Your task to perform on an android device: open app "Mercado Libre" (install if not already installed) Image 0: 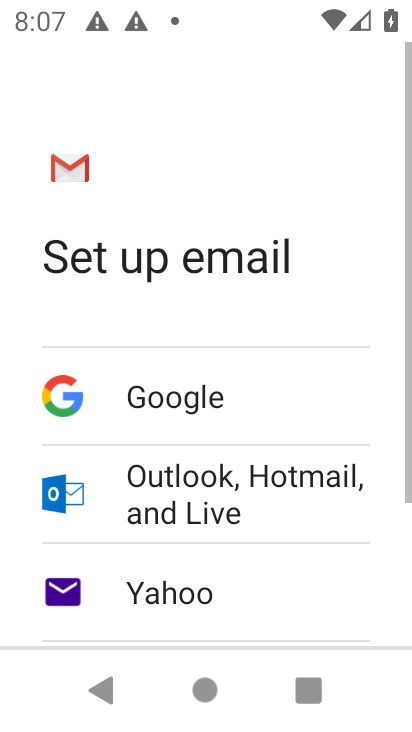
Step 0: press home button
Your task to perform on an android device: open app "Mercado Libre" (install if not already installed) Image 1: 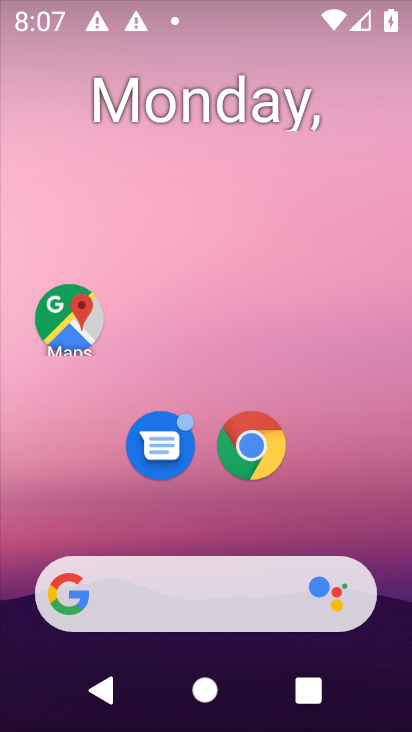
Step 1: drag from (385, 611) to (200, 24)
Your task to perform on an android device: open app "Mercado Libre" (install if not already installed) Image 2: 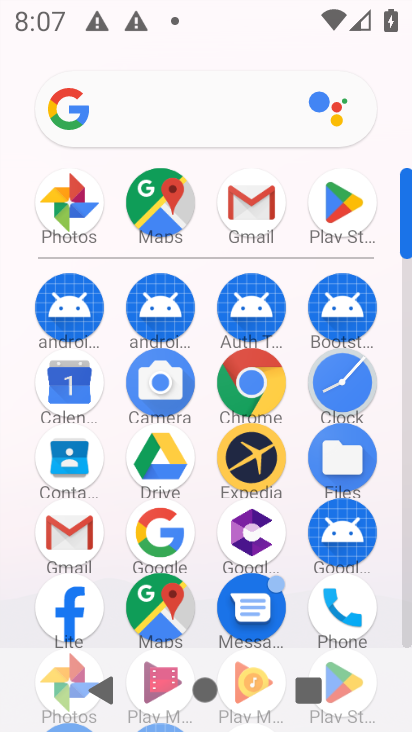
Step 2: click (334, 226)
Your task to perform on an android device: open app "Mercado Libre" (install if not already installed) Image 3: 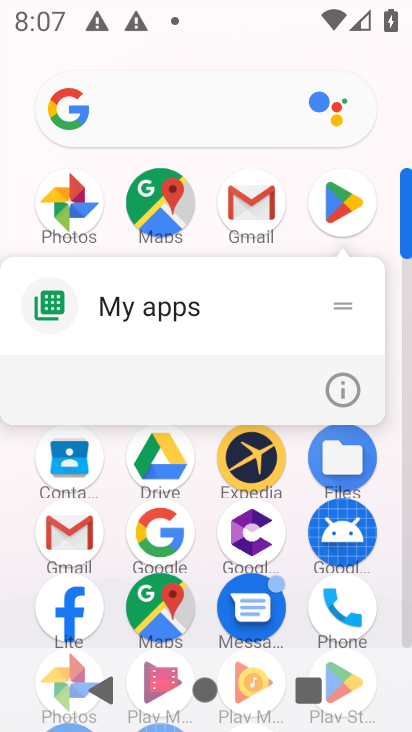
Step 3: click (334, 226)
Your task to perform on an android device: open app "Mercado Libre" (install if not already installed) Image 4: 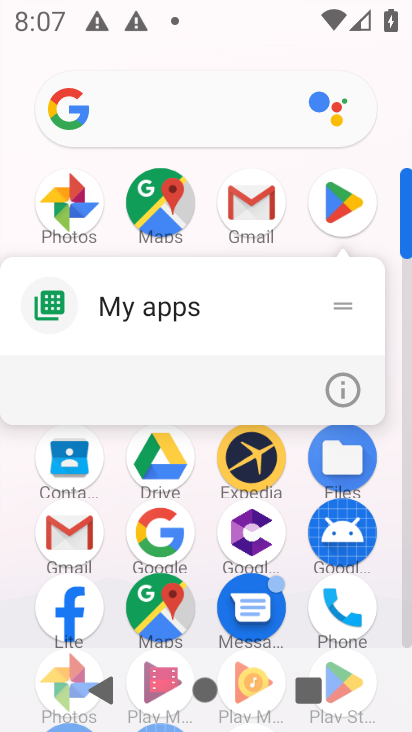
Step 4: click (334, 226)
Your task to perform on an android device: open app "Mercado Libre" (install if not already installed) Image 5: 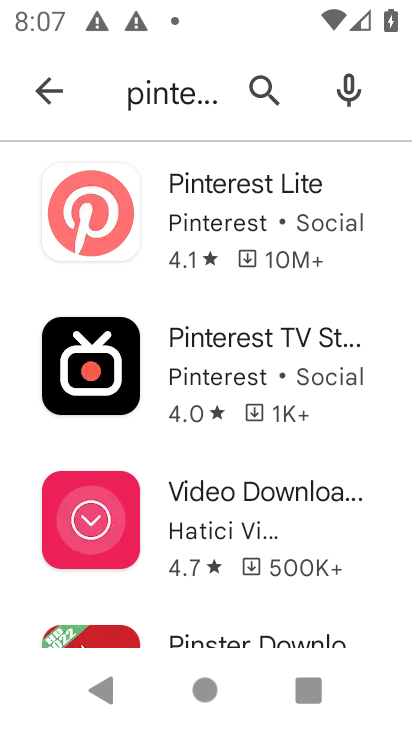
Step 5: press back button
Your task to perform on an android device: open app "Mercado Libre" (install if not already installed) Image 6: 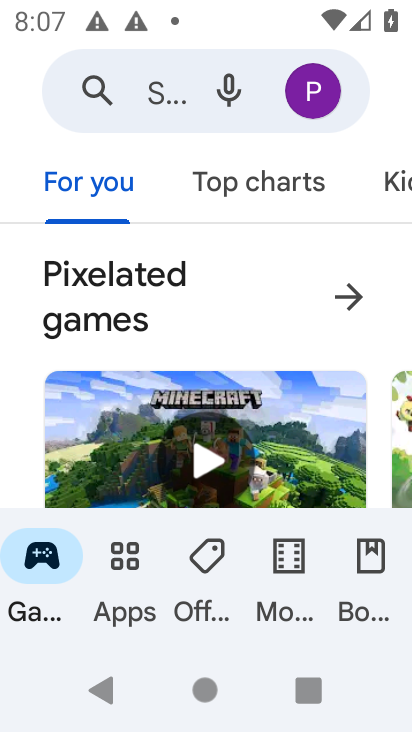
Step 6: click (151, 92)
Your task to perform on an android device: open app "Mercado Libre" (install if not already installed) Image 7: 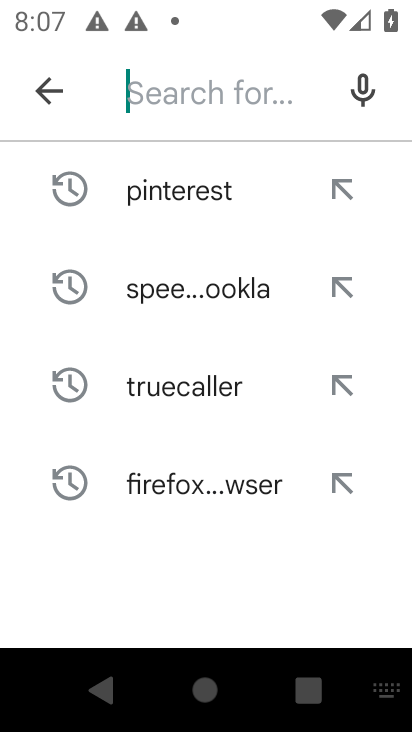
Step 7: type "Mercado Libre"
Your task to perform on an android device: open app "Mercado Libre" (install if not already installed) Image 8: 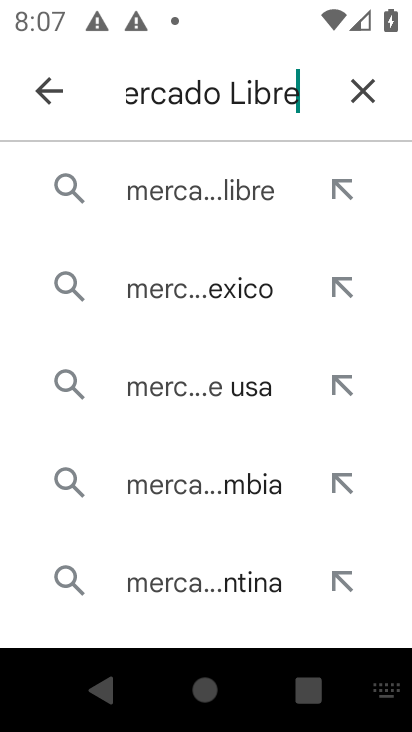
Step 8: click (172, 190)
Your task to perform on an android device: open app "Mercado Libre" (install if not already installed) Image 9: 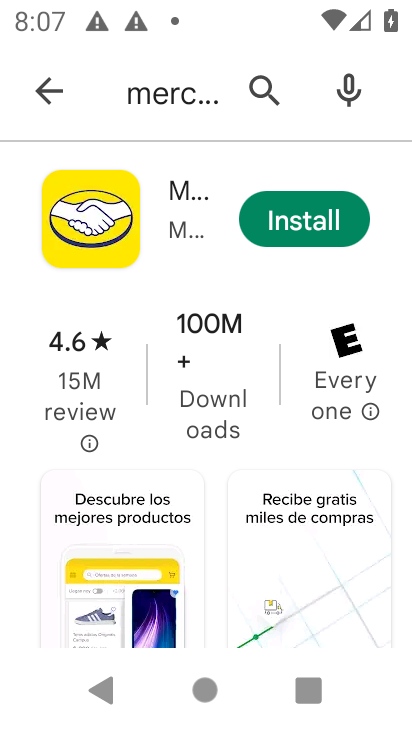
Step 9: task complete